Your task to perform on an android device: find which apps use the phone's location Image 0: 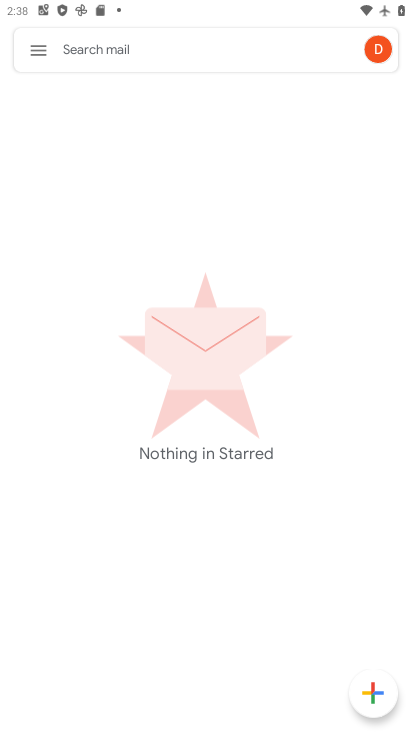
Step 0: press home button
Your task to perform on an android device: find which apps use the phone's location Image 1: 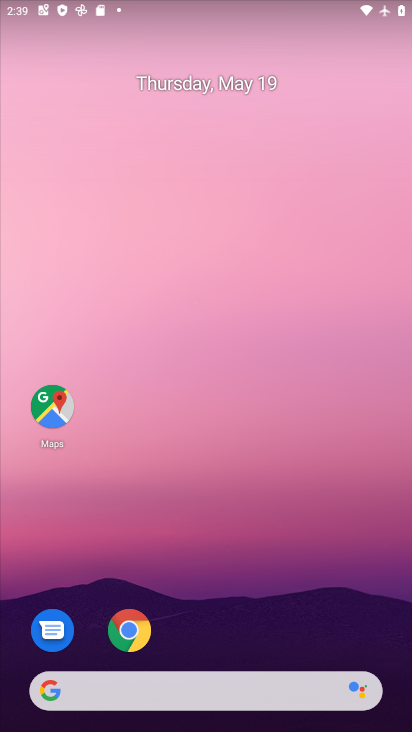
Step 1: drag from (379, 641) to (293, 66)
Your task to perform on an android device: find which apps use the phone's location Image 2: 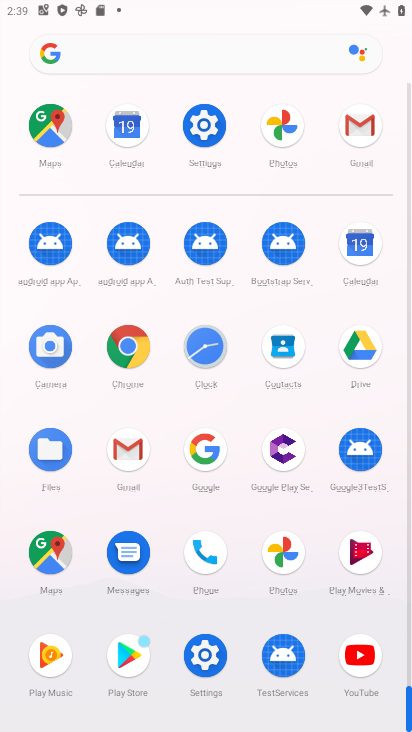
Step 2: click (205, 656)
Your task to perform on an android device: find which apps use the phone's location Image 3: 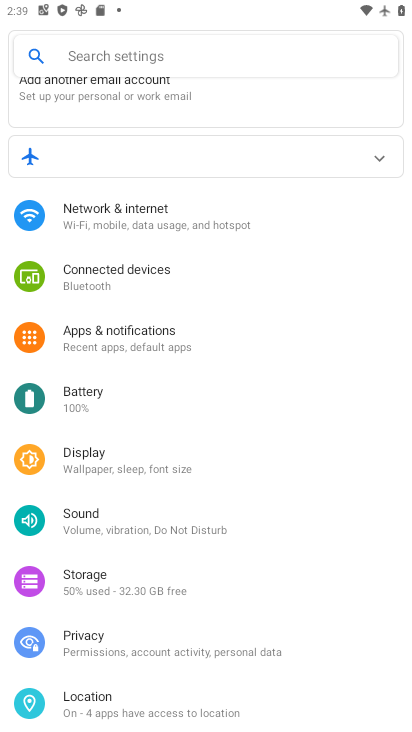
Step 3: drag from (219, 610) to (247, 259)
Your task to perform on an android device: find which apps use the phone's location Image 4: 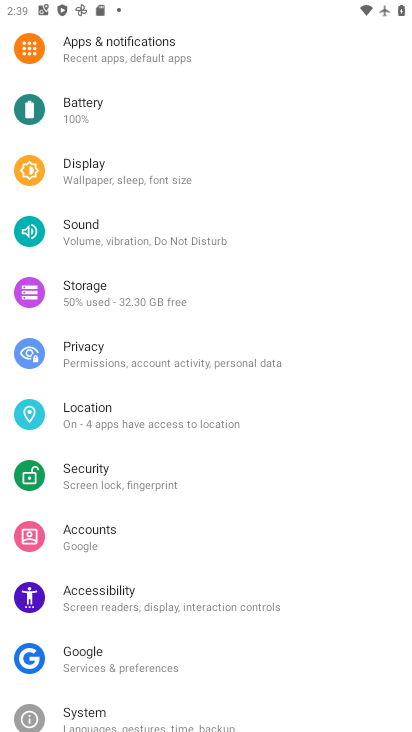
Step 4: click (82, 414)
Your task to perform on an android device: find which apps use the phone's location Image 5: 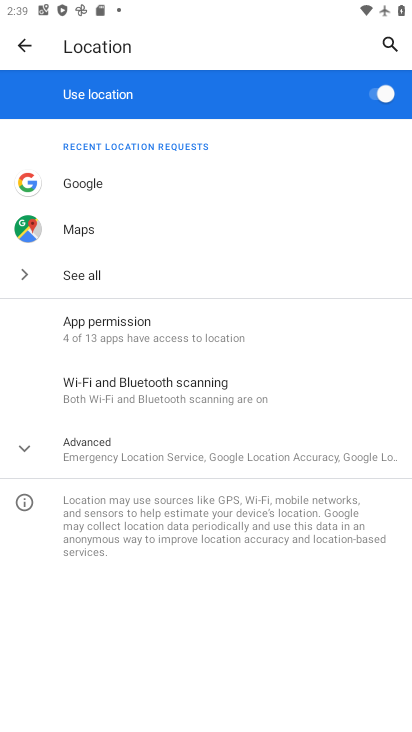
Step 5: click (97, 326)
Your task to perform on an android device: find which apps use the phone's location Image 6: 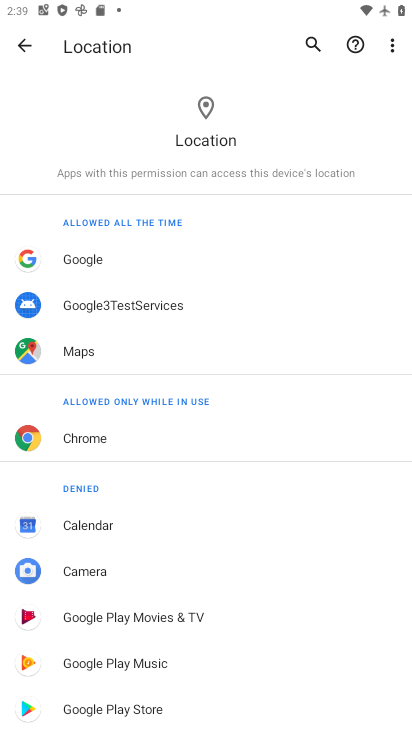
Step 6: drag from (280, 631) to (294, 152)
Your task to perform on an android device: find which apps use the phone's location Image 7: 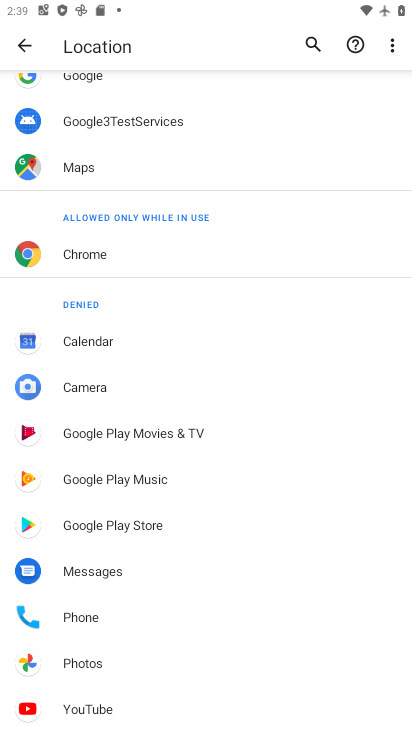
Step 7: click (81, 659)
Your task to perform on an android device: find which apps use the phone's location Image 8: 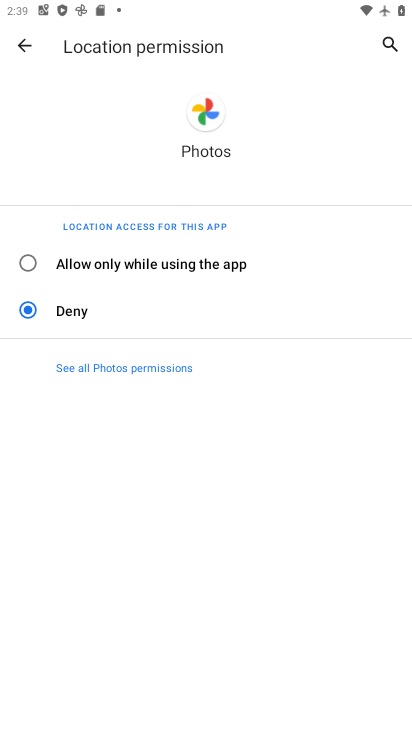
Step 8: task complete